Your task to perform on an android device: Go to privacy settings Image 0: 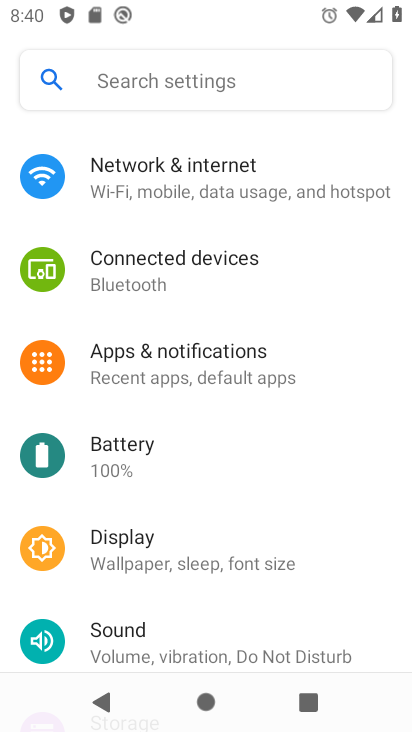
Step 0: drag from (214, 584) to (221, 372)
Your task to perform on an android device: Go to privacy settings Image 1: 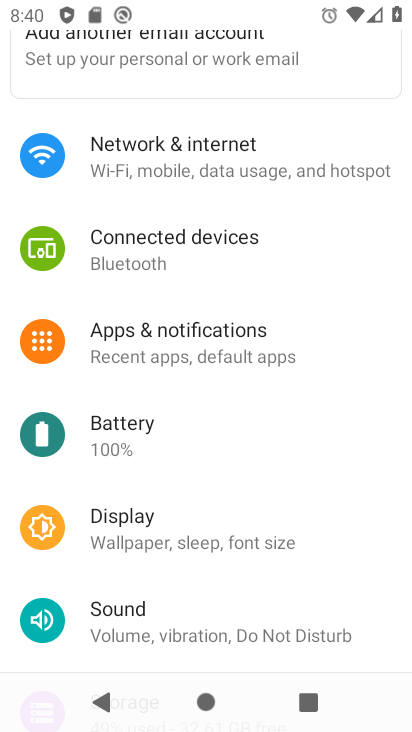
Step 1: press home button
Your task to perform on an android device: Go to privacy settings Image 2: 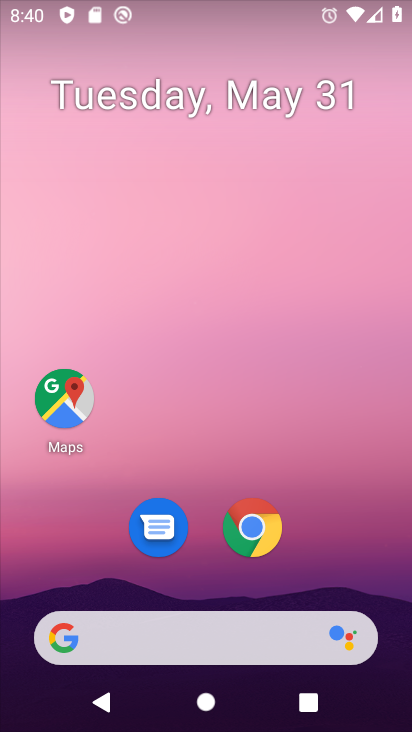
Step 2: drag from (184, 578) to (118, 207)
Your task to perform on an android device: Go to privacy settings Image 3: 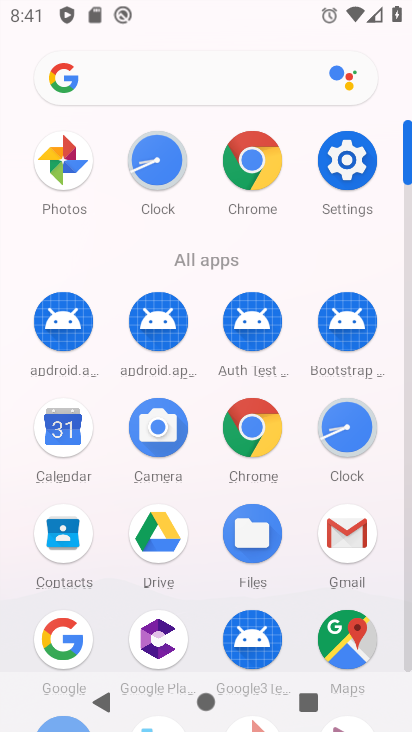
Step 3: drag from (201, 607) to (210, 326)
Your task to perform on an android device: Go to privacy settings Image 4: 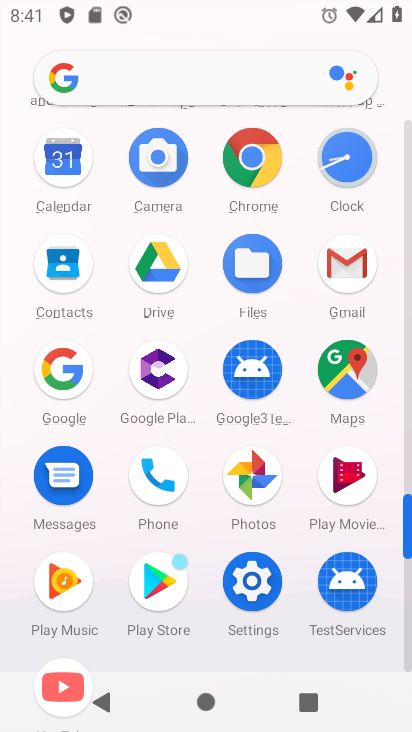
Step 4: drag from (238, 556) to (231, 348)
Your task to perform on an android device: Go to privacy settings Image 5: 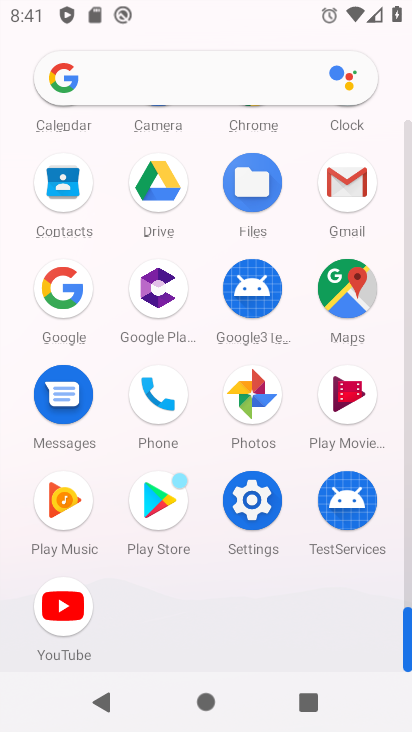
Step 5: click (234, 521)
Your task to perform on an android device: Go to privacy settings Image 6: 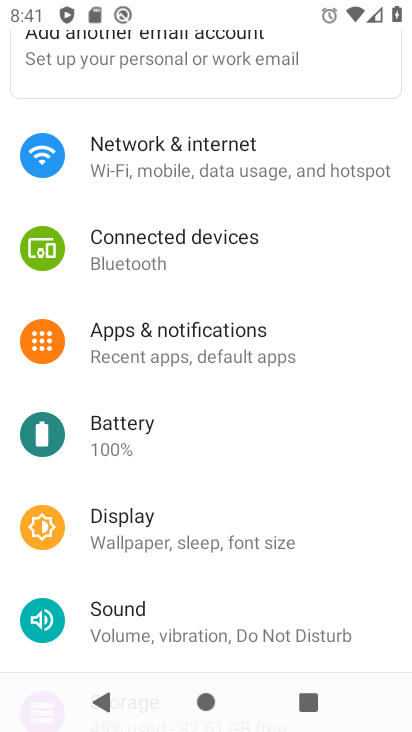
Step 6: drag from (191, 601) to (174, 325)
Your task to perform on an android device: Go to privacy settings Image 7: 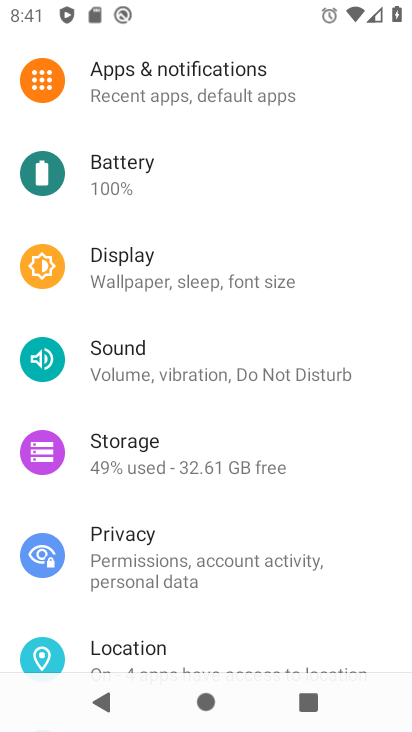
Step 7: click (137, 562)
Your task to perform on an android device: Go to privacy settings Image 8: 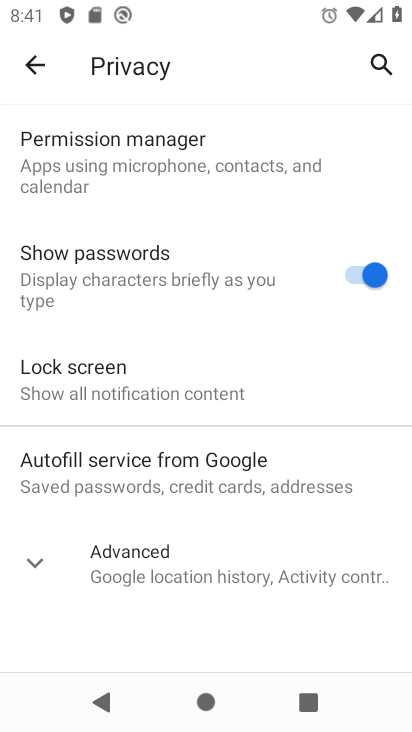
Step 8: task complete